Your task to perform on an android device: Open eBay Image 0: 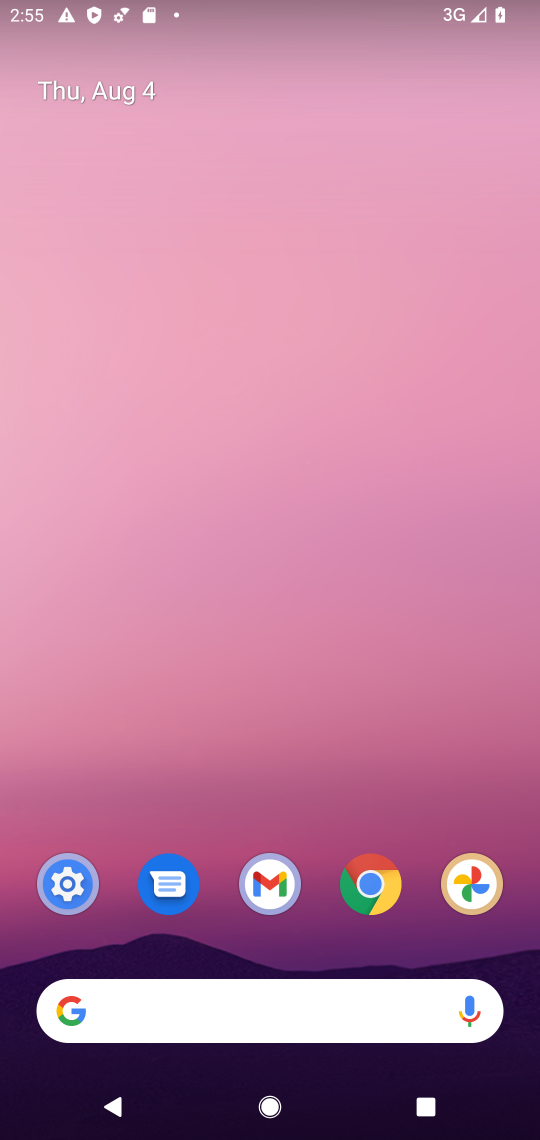
Step 0: press home button
Your task to perform on an android device: Open eBay Image 1: 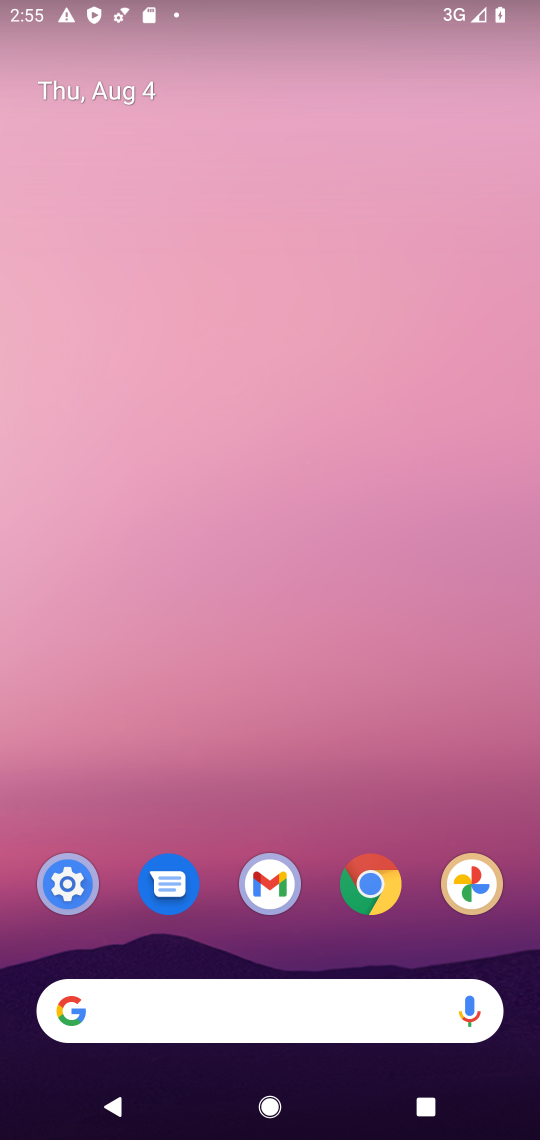
Step 1: drag from (360, 777) to (417, 396)
Your task to perform on an android device: Open eBay Image 2: 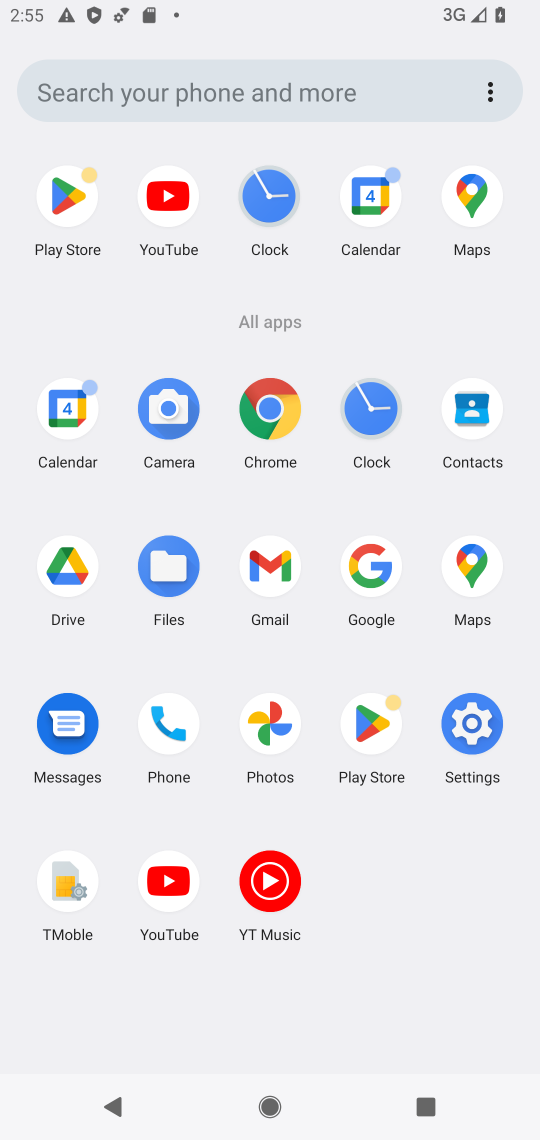
Step 2: click (271, 409)
Your task to perform on an android device: Open eBay Image 3: 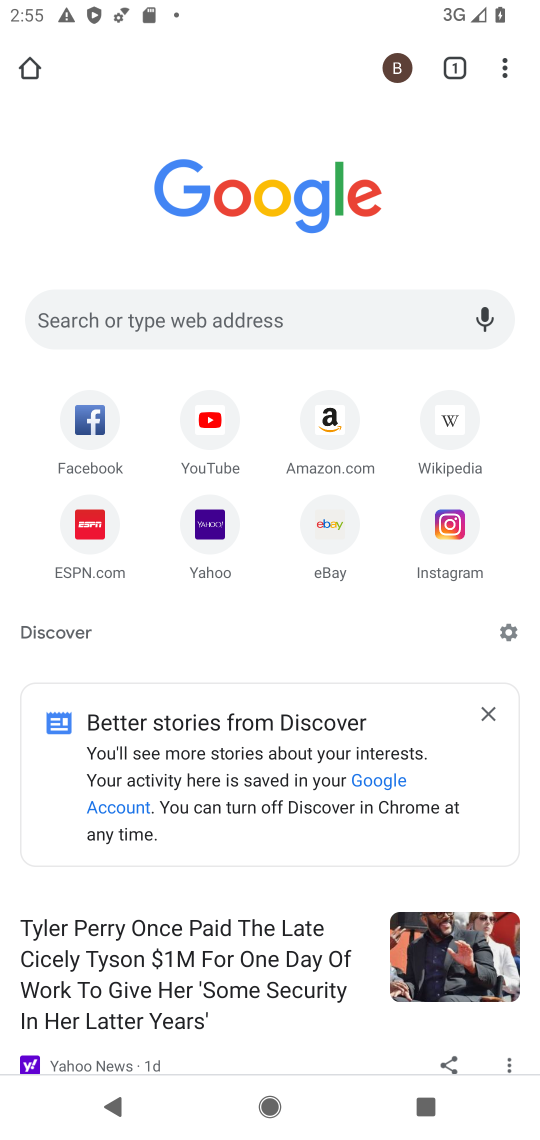
Step 3: click (360, 309)
Your task to perform on an android device: Open eBay Image 4: 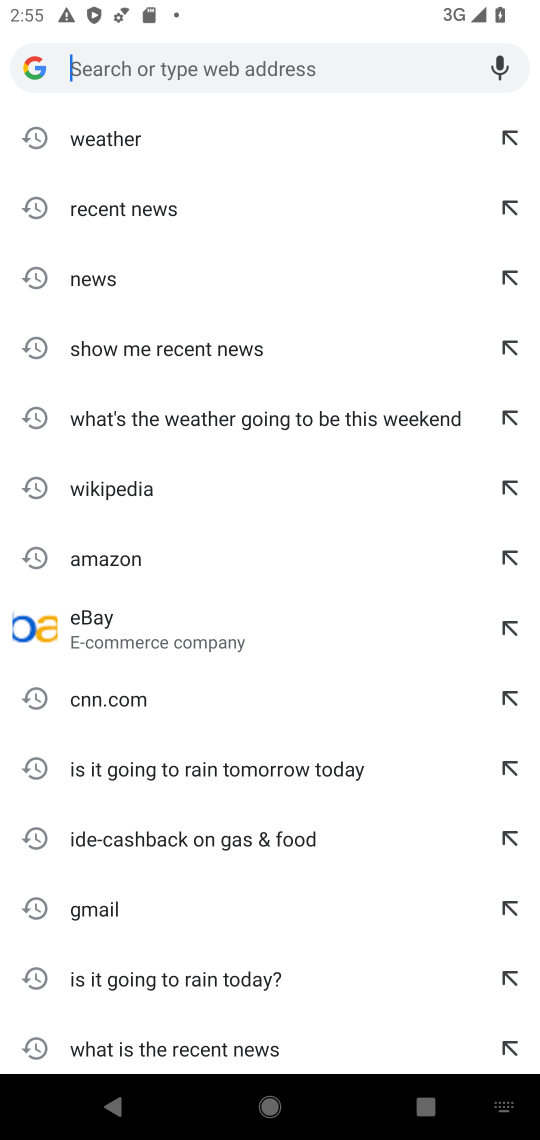
Step 4: type "ebay"
Your task to perform on an android device: Open eBay Image 5: 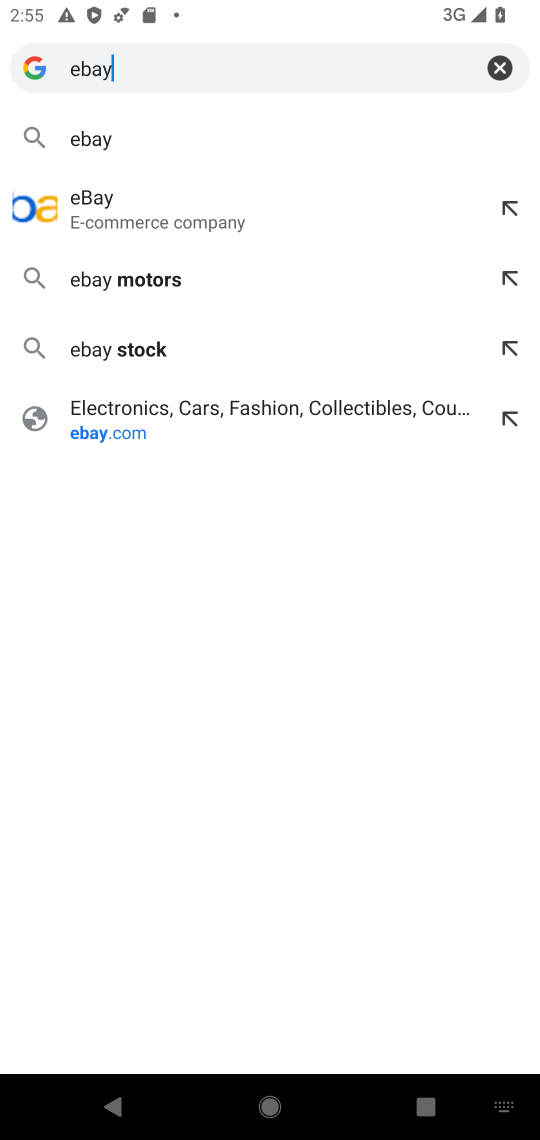
Step 5: click (177, 212)
Your task to perform on an android device: Open eBay Image 6: 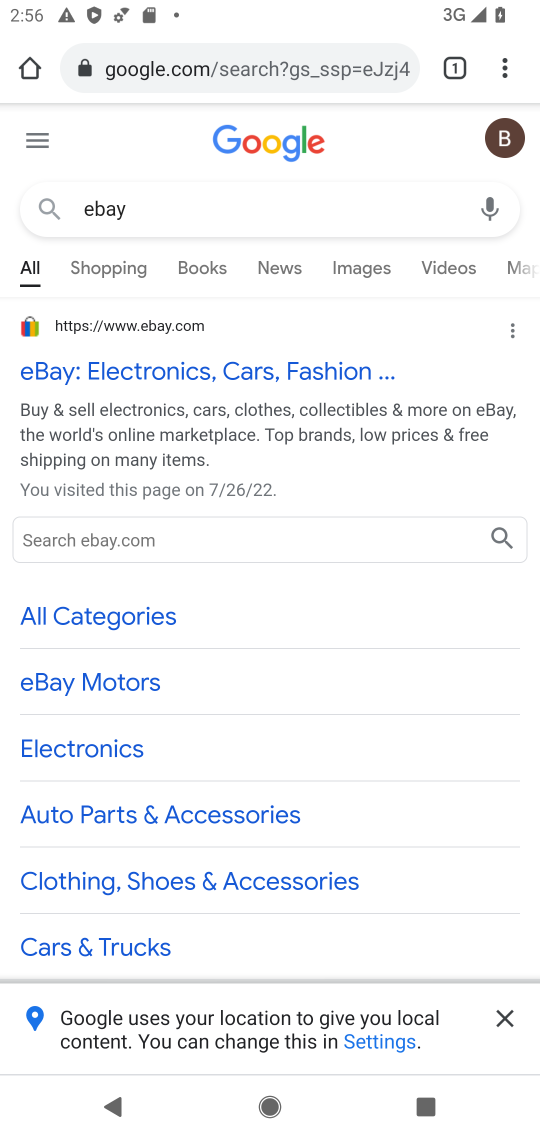
Step 6: task complete